Your task to perform on an android device: turn off smart reply in the gmail app Image 0: 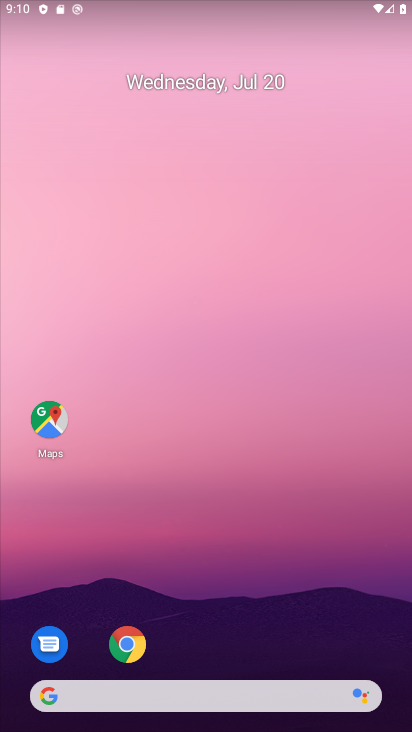
Step 0: drag from (270, 535) to (262, 288)
Your task to perform on an android device: turn off smart reply in the gmail app Image 1: 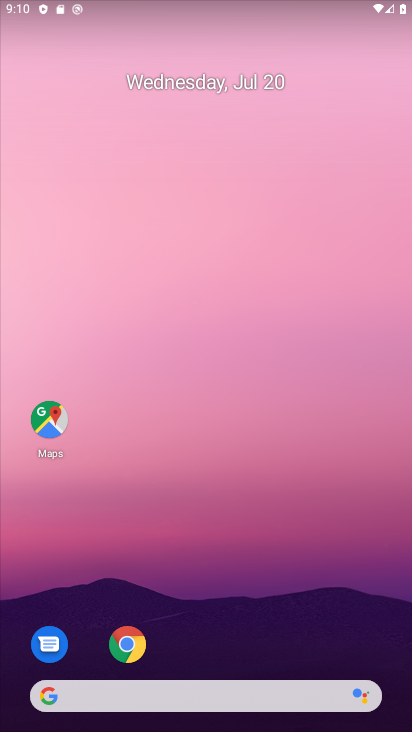
Step 1: drag from (216, 470) to (219, 196)
Your task to perform on an android device: turn off smart reply in the gmail app Image 2: 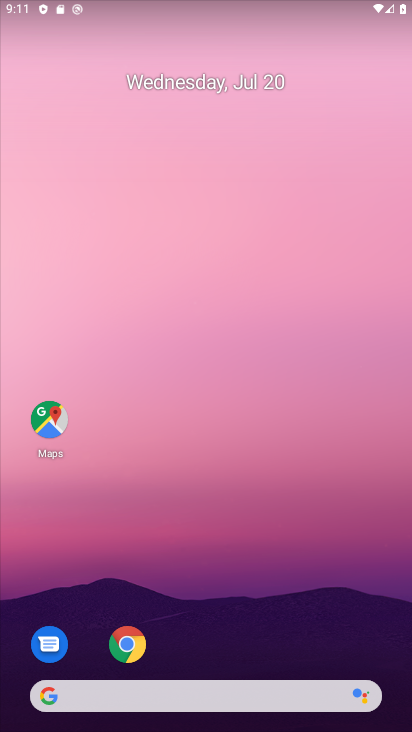
Step 2: drag from (254, 397) to (251, 118)
Your task to perform on an android device: turn off smart reply in the gmail app Image 3: 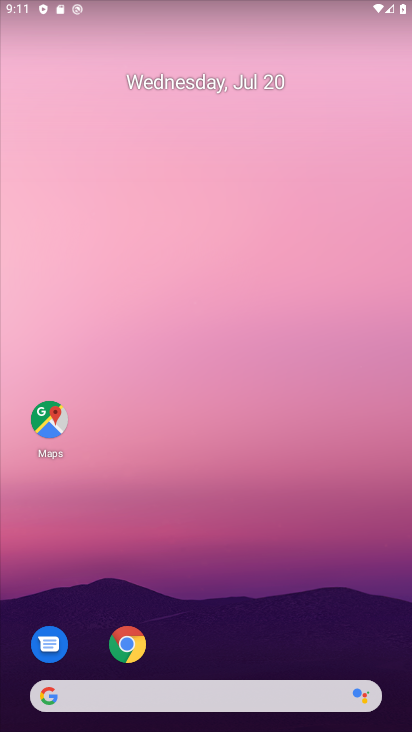
Step 3: drag from (207, 337) to (205, 83)
Your task to perform on an android device: turn off smart reply in the gmail app Image 4: 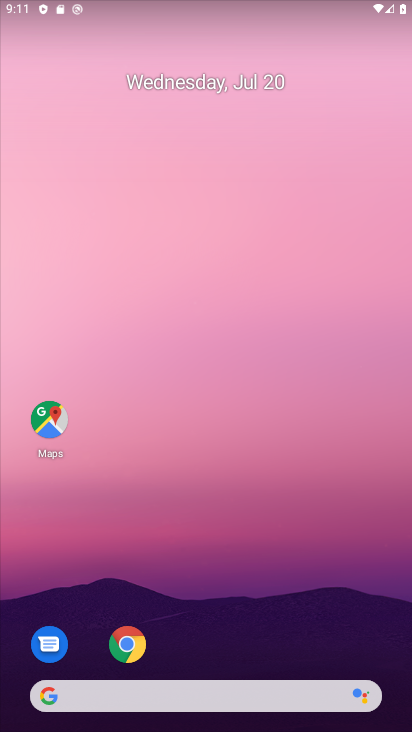
Step 4: drag from (196, 549) to (187, 104)
Your task to perform on an android device: turn off smart reply in the gmail app Image 5: 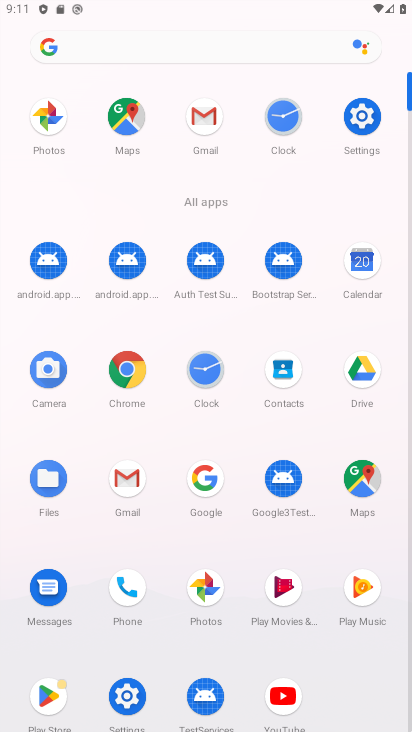
Step 5: click (134, 476)
Your task to perform on an android device: turn off smart reply in the gmail app Image 6: 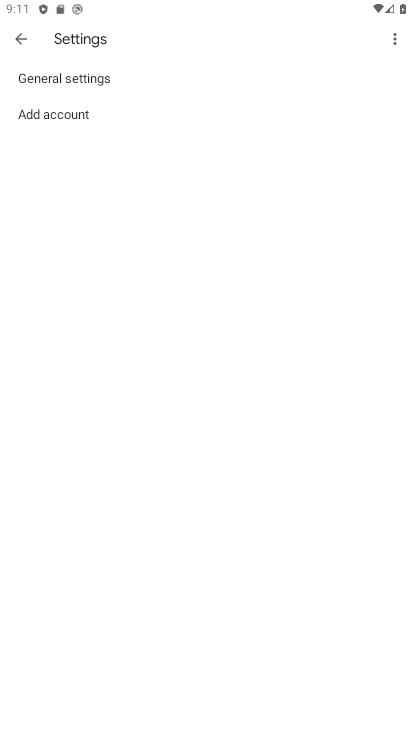
Step 6: click (13, 43)
Your task to perform on an android device: turn off smart reply in the gmail app Image 7: 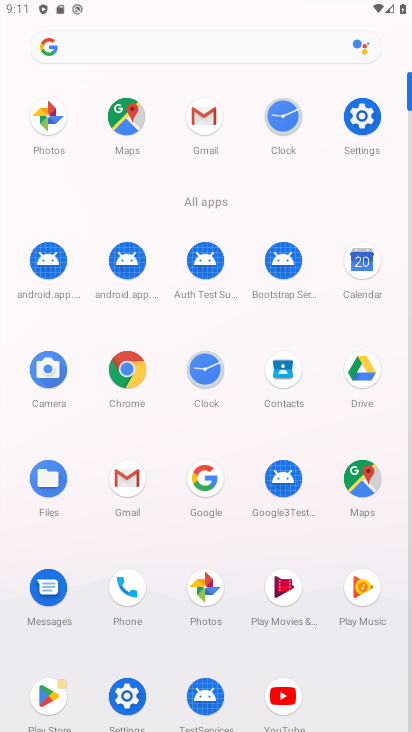
Step 7: click (131, 473)
Your task to perform on an android device: turn off smart reply in the gmail app Image 8: 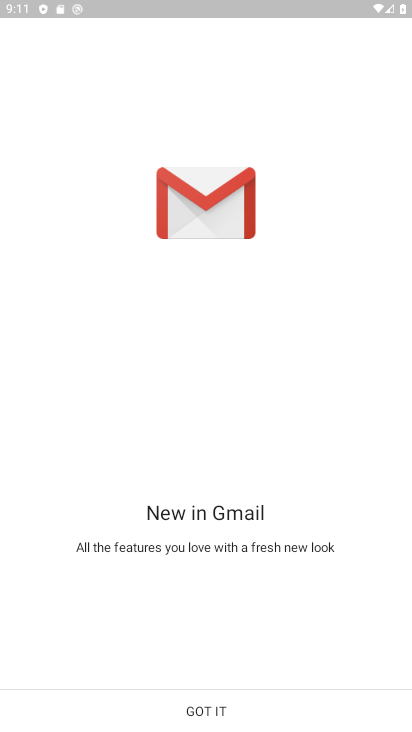
Step 8: click (195, 712)
Your task to perform on an android device: turn off smart reply in the gmail app Image 9: 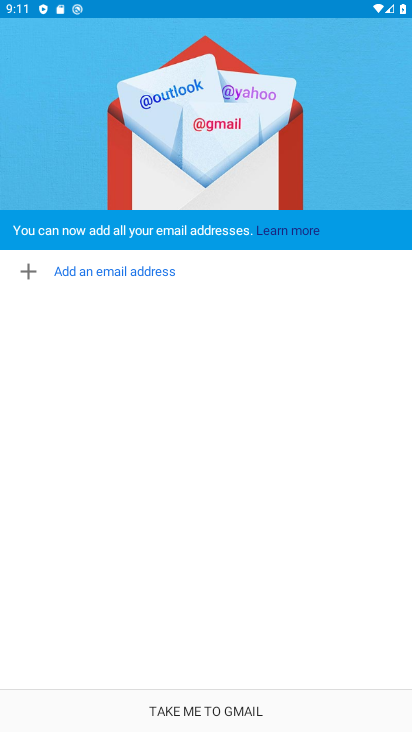
Step 9: click (195, 712)
Your task to perform on an android device: turn off smart reply in the gmail app Image 10: 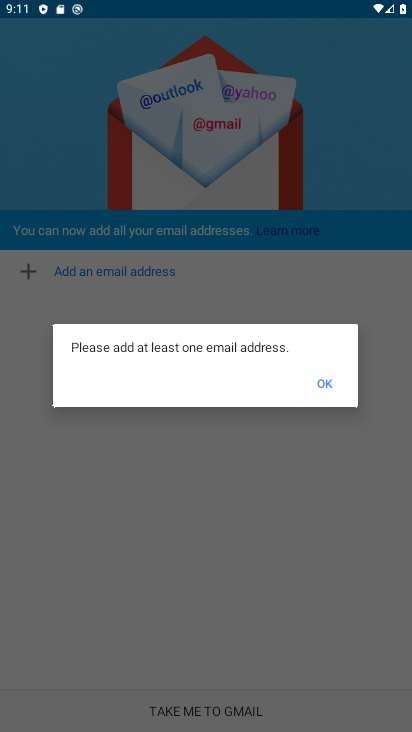
Step 10: task complete